Your task to perform on an android device: Open Google Chrome and click the shortcut for Amazon.com Image 0: 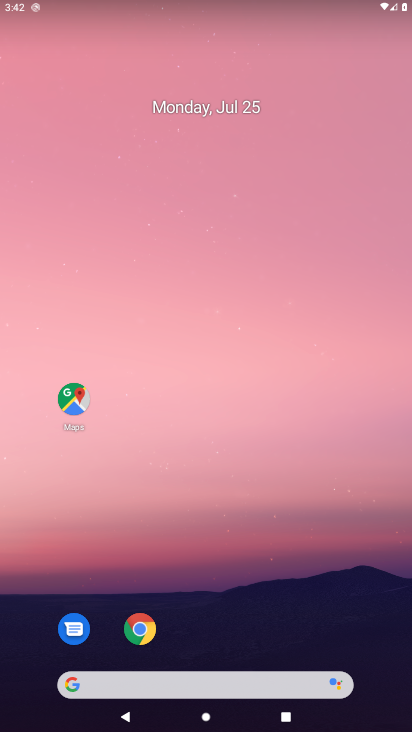
Step 0: click (140, 624)
Your task to perform on an android device: Open Google Chrome and click the shortcut for Amazon.com Image 1: 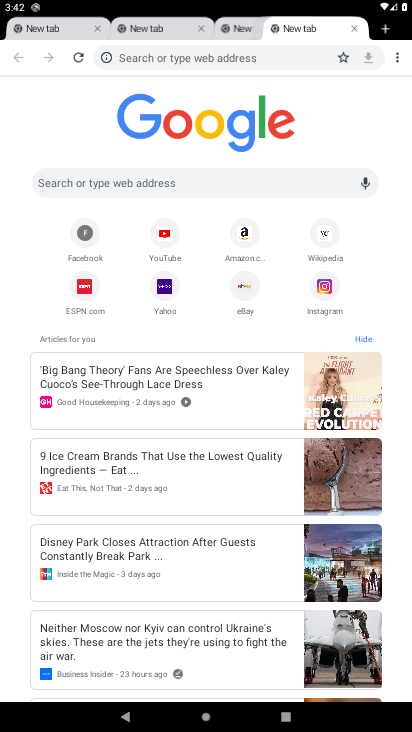
Step 1: click (70, 112)
Your task to perform on an android device: Open Google Chrome and click the shortcut for Amazon.com Image 2: 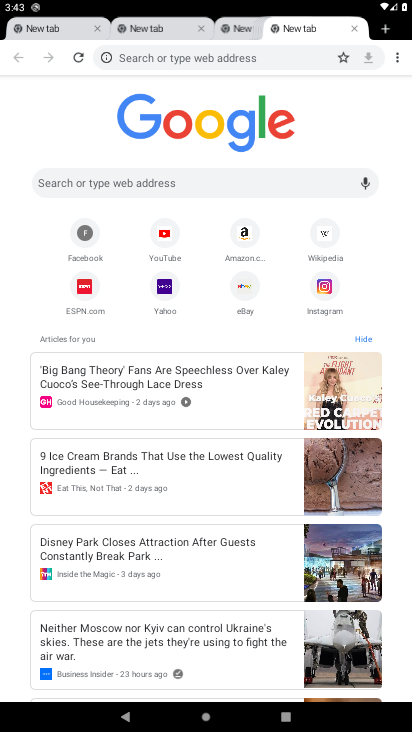
Step 2: click (240, 232)
Your task to perform on an android device: Open Google Chrome and click the shortcut for Amazon.com Image 3: 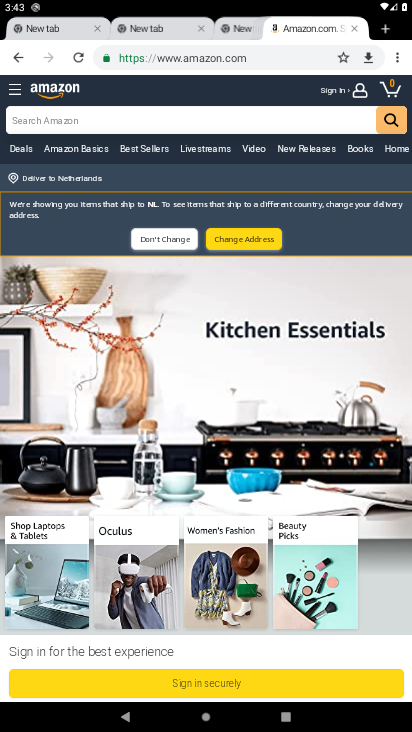
Step 3: task complete